Your task to perform on an android device: create a new album in the google photos Image 0: 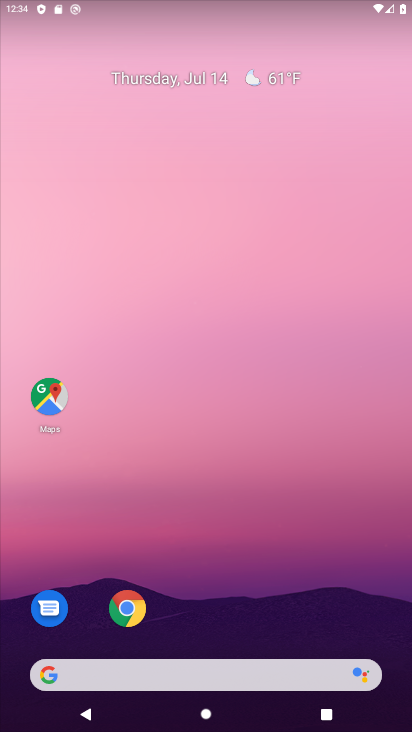
Step 0: drag from (356, 569) to (353, 222)
Your task to perform on an android device: create a new album in the google photos Image 1: 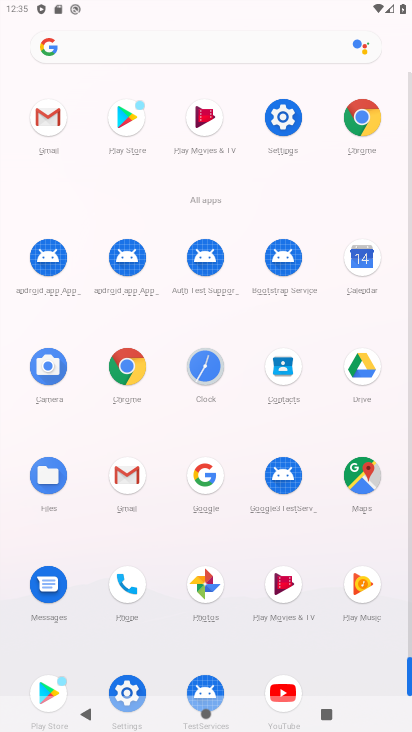
Step 1: click (205, 588)
Your task to perform on an android device: create a new album in the google photos Image 2: 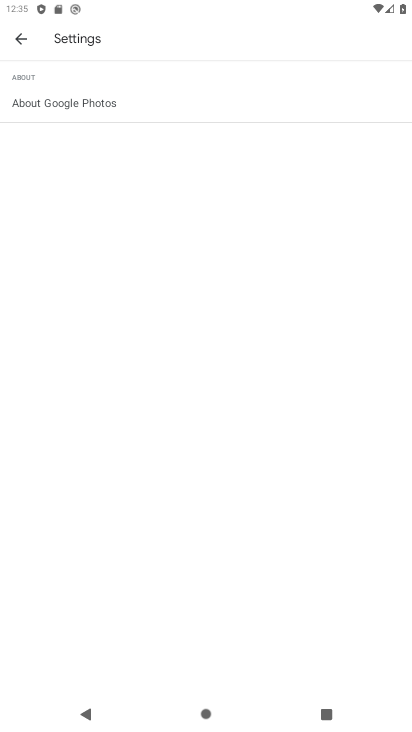
Step 2: press back button
Your task to perform on an android device: create a new album in the google photos Image 3: 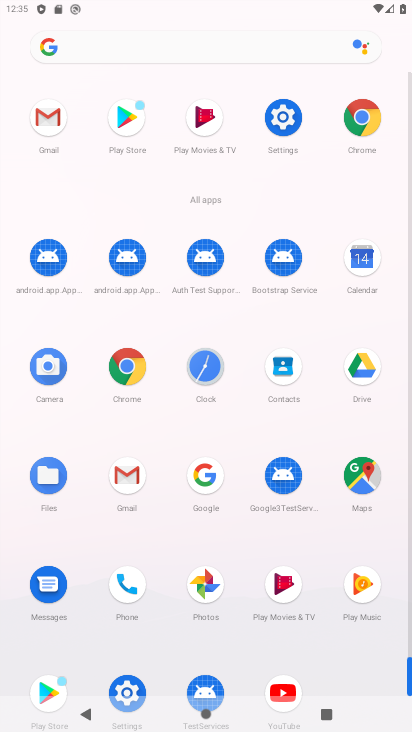
Step 3: click (207, 575)
Your task to perform on an android device: create a new album in the google photos Image 4: 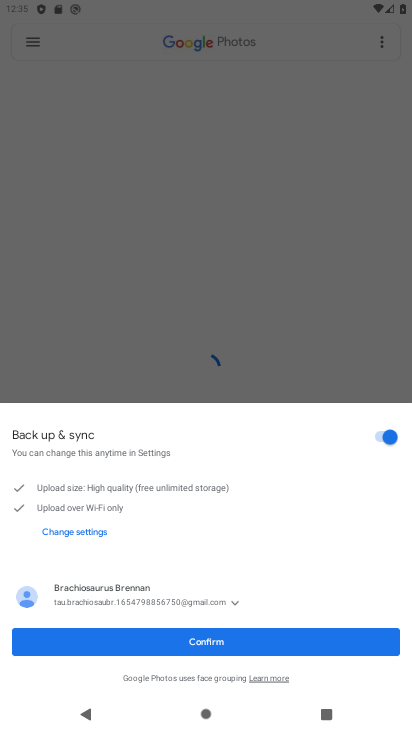
Step 4: click (257, 641)
Your task to perform on an android device: create a new album in the google photos Image 5: 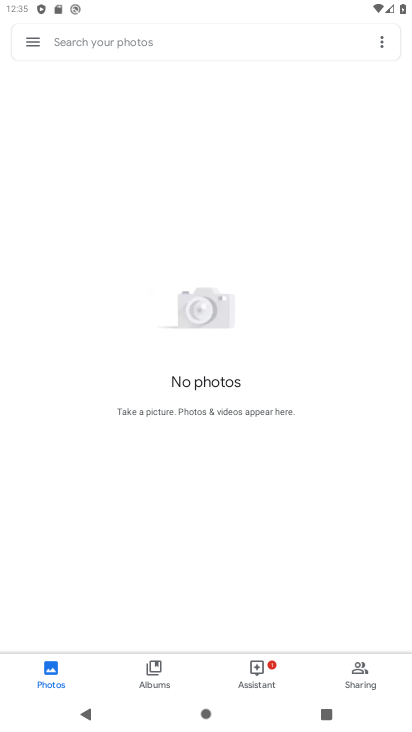
Step 5: click (157, 674)
Your task to perform on an android device: create a new album in the google photos Image 6: 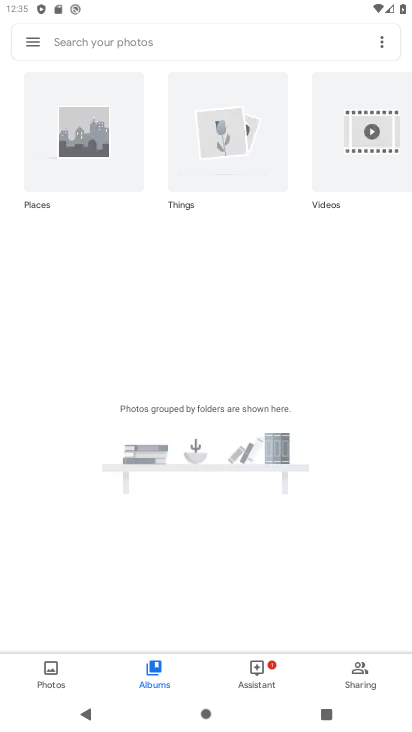
Step 6: task complete